Your task to perform on an android device: turn on the 24-hour format for clock Image 0: 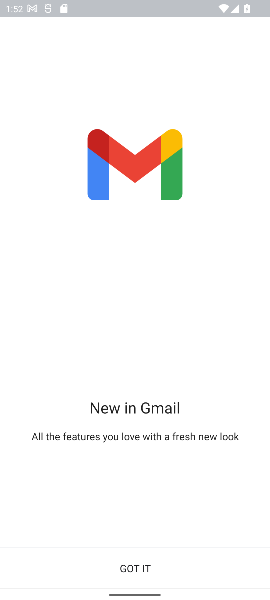
Step 0: click (138, 570)
Your task to perform on an android device: turn on the 24-hour format for clock Image 1: 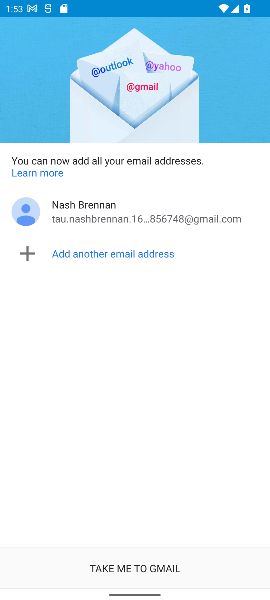
Step 1: click (129, 566)
Your task to perform on an android device: turn on the 24-hour format for clock Image 2: 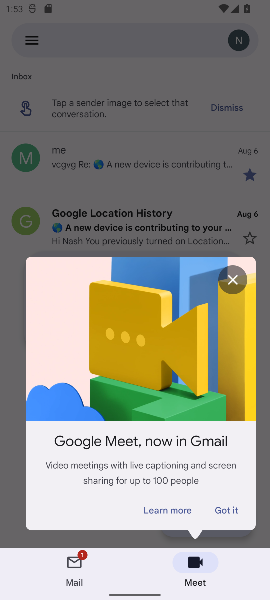
Step 2: click (224, 510)
Your task to perform on an android device: turn on the 24-hour format for clock Image 3: 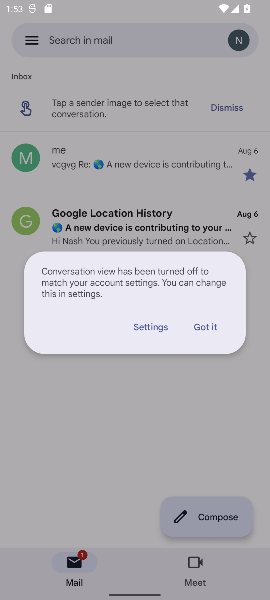
Step 3: click (207, 324)
Your task to perform on an android device: turn on the 24-hour format for clock Image 4: 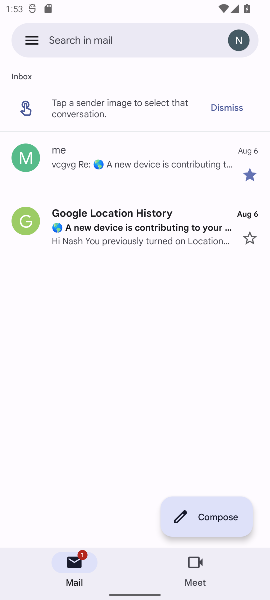
Step 4: task complete